Your task to perform on an android device: Open maps Image 0: 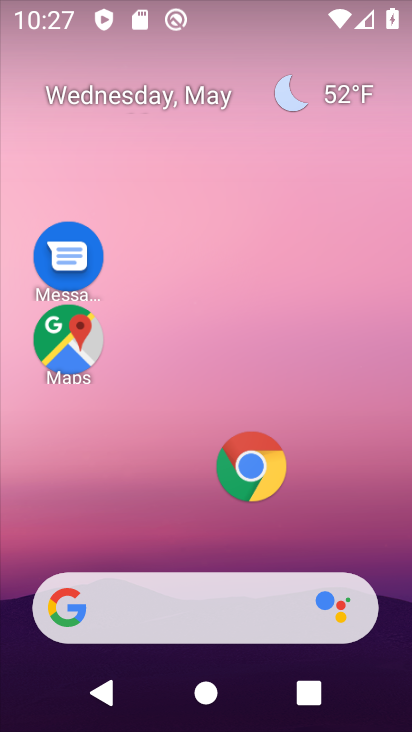
Step 0: click (61, 340)
Your task to perform on an android device: Open maps Image 1: 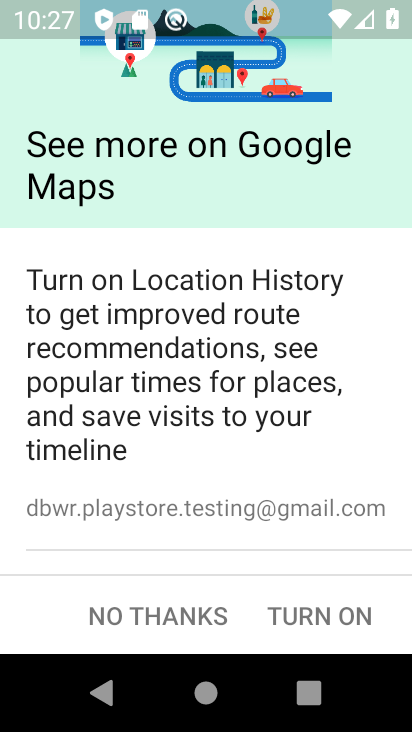
Step 1: click (178, 607)
Your task to perform on an android device: Open maps Image 2: 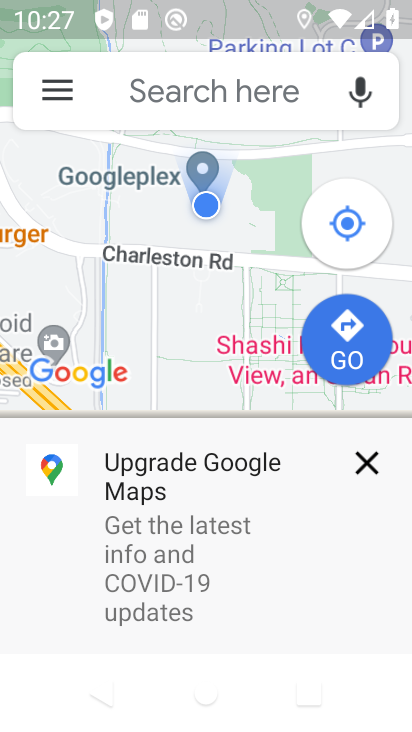
Step 2: task complete